Your task to perform on an android device: change timer sound Image 0: 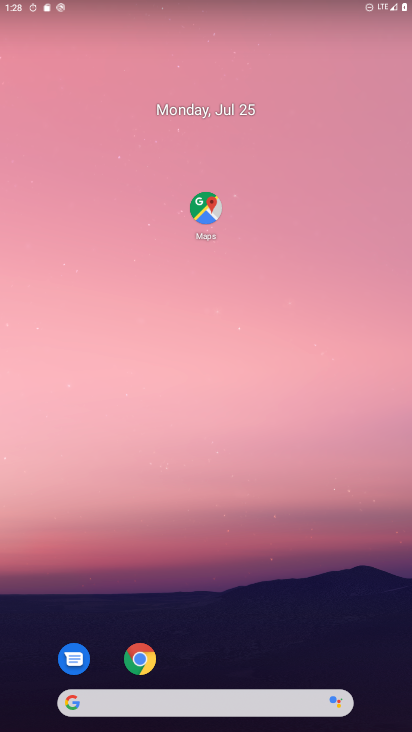
Step 0: drag from (94, 458) to (205, 24)
Your task to perform on an android device: change timer sound Image 1: 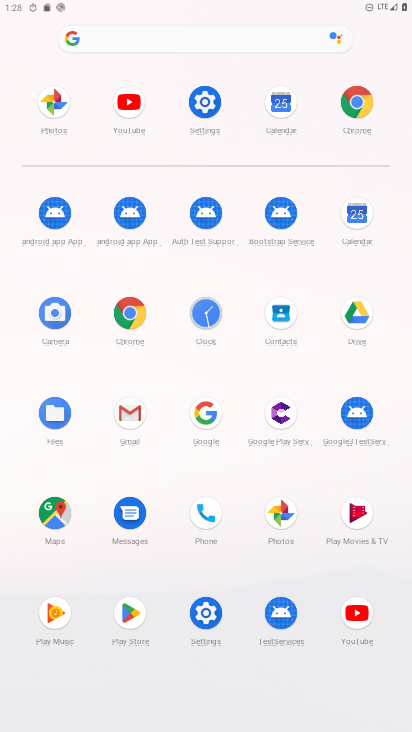
Step 1: click (204, 633)
Your task to perform on an android device: change timer sound Image 2: 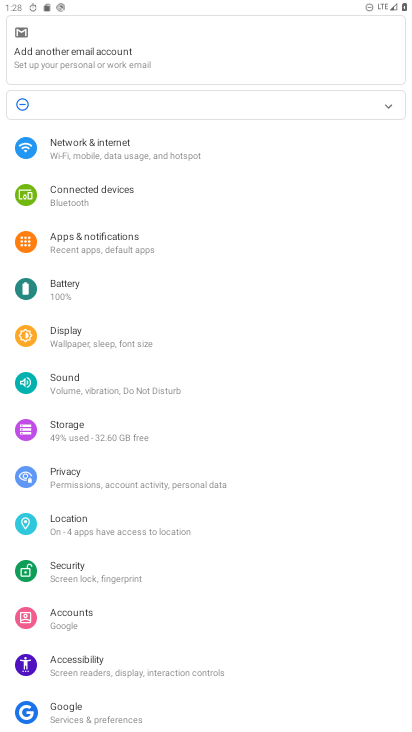
Step 2: press home button
Your task to perform on an android device: change timer sound Image 3: 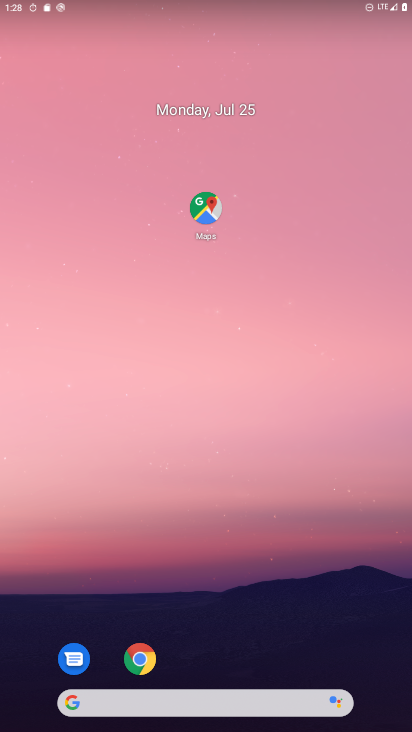
Step 3: drag from (15, 668) to (135, 184)
Your task to perform on an android device: change timer sound Image 4: 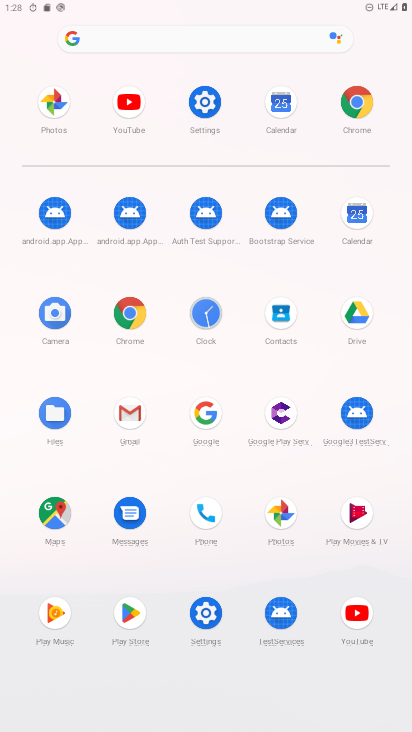
Step 4: click (184, 334)
Your task to perform on an android device: change timer sound Image 5: 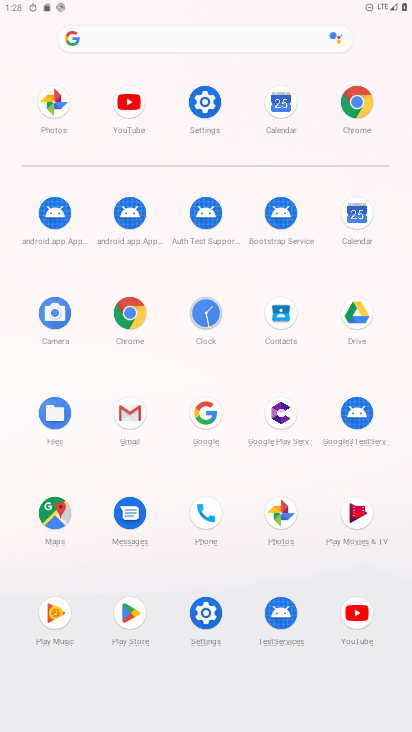
Step 5: click (196, 309)
Your task to perform on an android device: change timer sound Image 6: 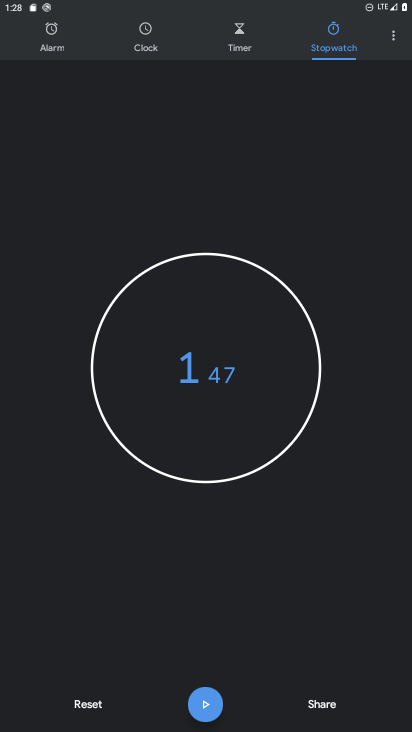
Step 6: click (390, 36)
Your task to perform on an android device: change timer sound Image 7: 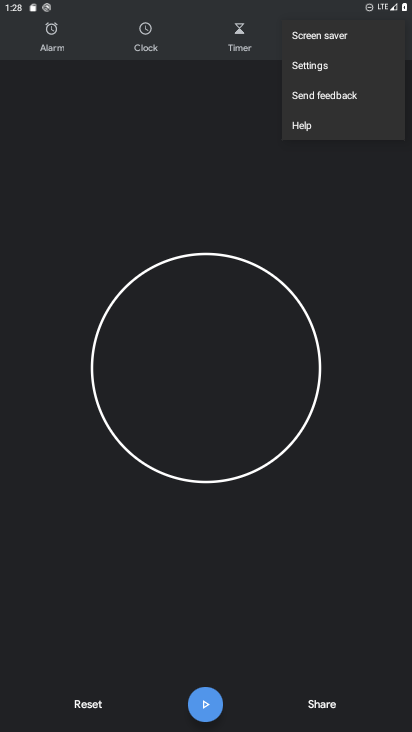
Step 7: click (323, 66)
Your task to perform on an android device: change timer sound Image 8: 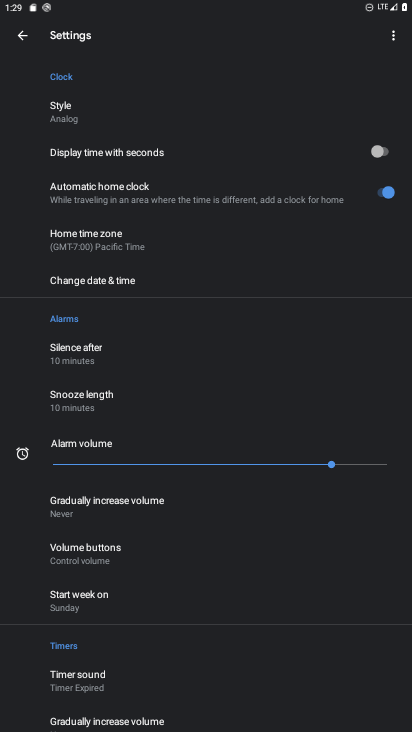
Step 8: click (101, 684)
Your task to perform on an android device: change timer sound Image 9: 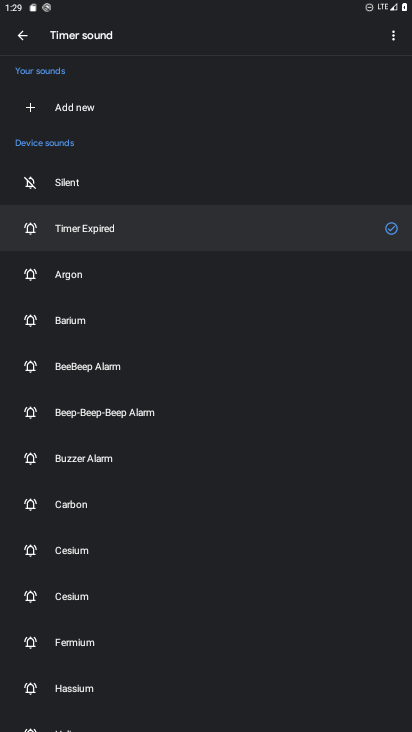
Step 9: click (78, 273)
Your task to perform on an android device: change timer sound Image 10: 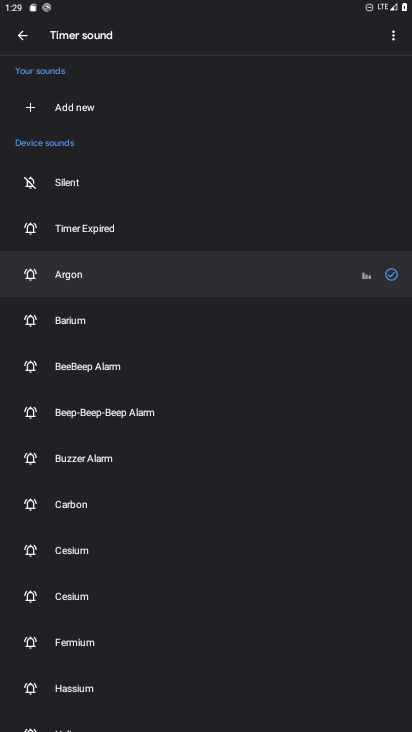
Step 10: task complete